Your task to perform on an android device: Go to privacy settings Image 0: 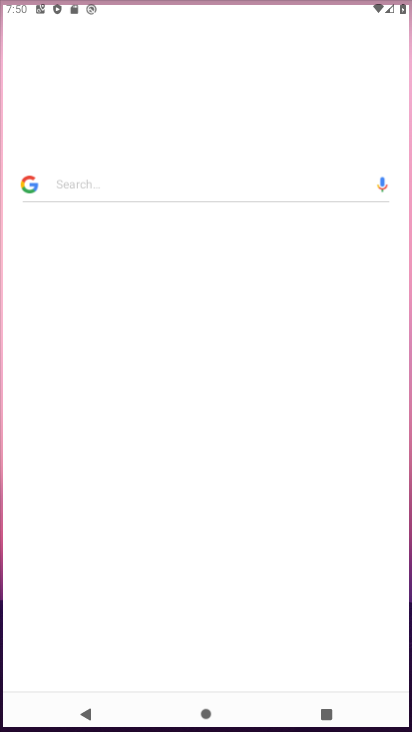
Step 0: drag from (239, 613) to (315, 164)
Your task to perform on an android device: Go to privacy settings Image 1: 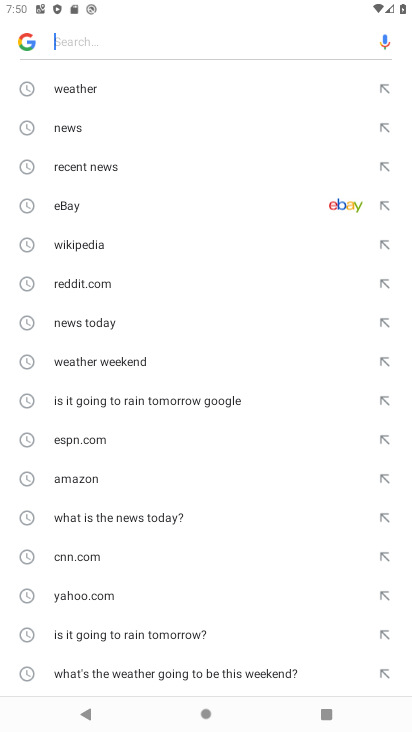
Step 1: press home button
Your task to perform on an android device: Go to privacy settings Image 2: 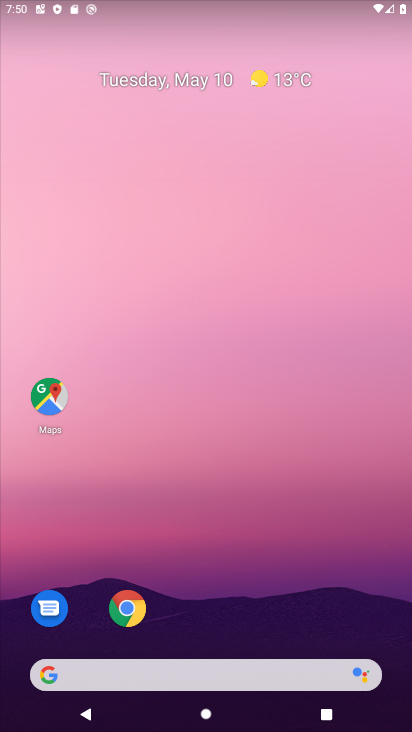
Step 2: drag from (234, 601) to (222, 181)
Your task to perform on an android device: Go to privacy settings Image 3: 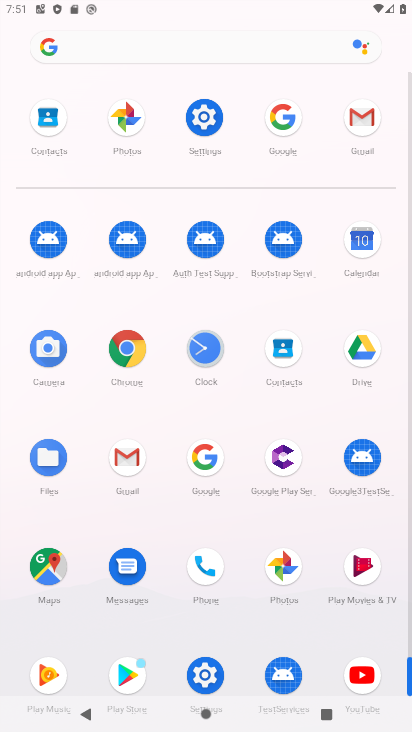
Step 3: click (206, 149)
Your task to perform on an android device: Go to privacy settings Image 4: 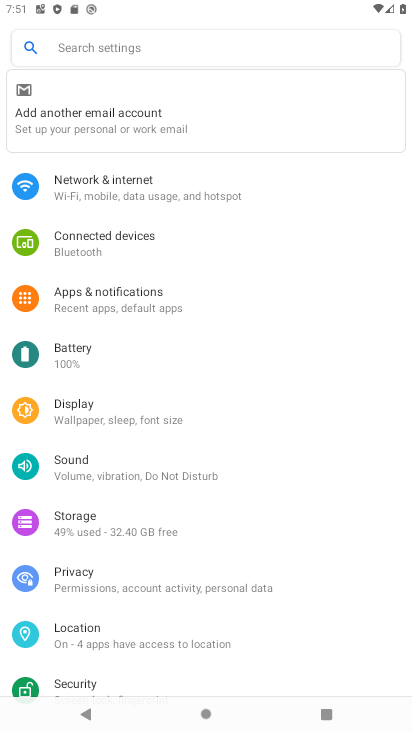
Step 4: click (113, 580)
Your task to perform on an android device: Go to privacy settings Image 5: 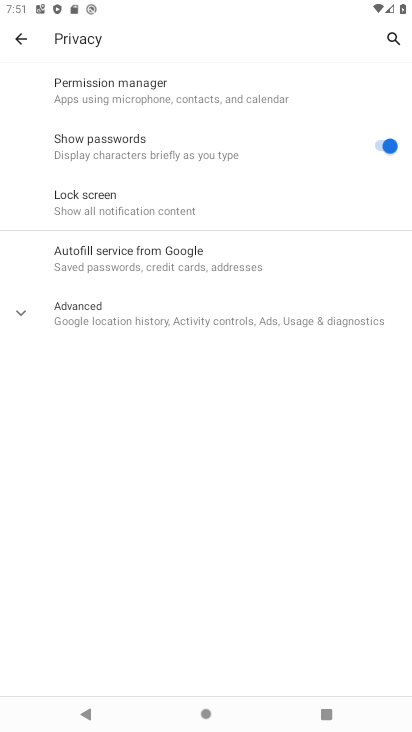
Step 5: task complete